Your task to perform on an android device: check storage Image 0: 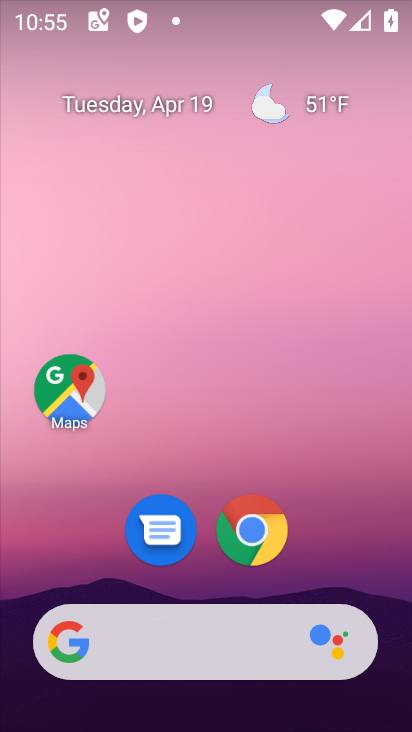
Step 0: drag from (327, 520) to (336, 119)
Your task to perform on an android device: check storage Image 1: 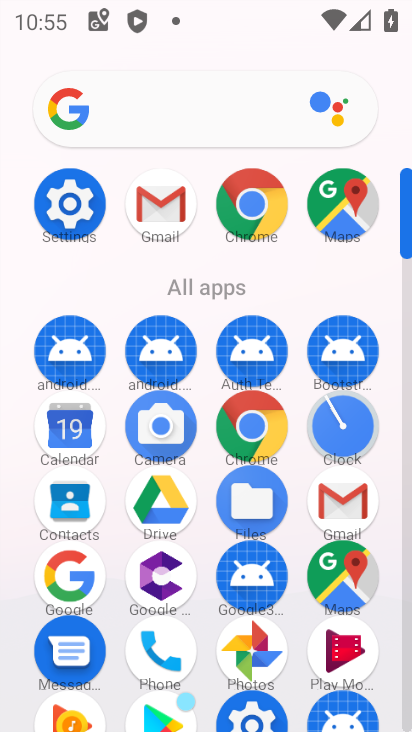
Step 1: click (75, 204)
Your task to perform on an android device: check storage Image 2: 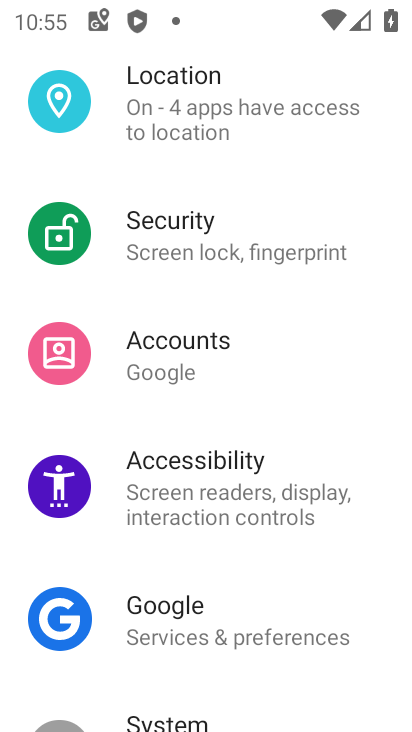
Step 2: drag from (249, 182) to (237, 664)
Your task to perform on an android device: check storage Image 3: 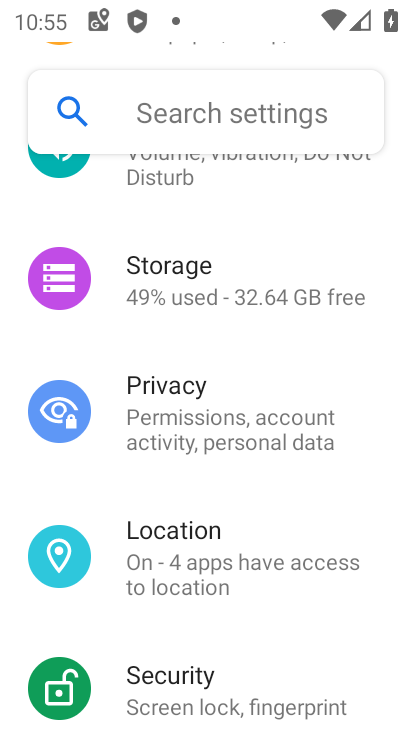
Step 3: click (286, 299)
Your task to perform on an android device: check storage Image 4: 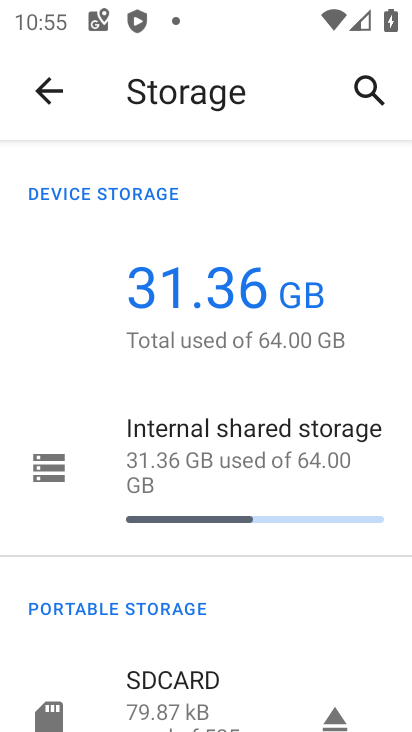
Step 4: task complete